Your task to perform on an android device: Show me the alarms in the clock app Image 0: 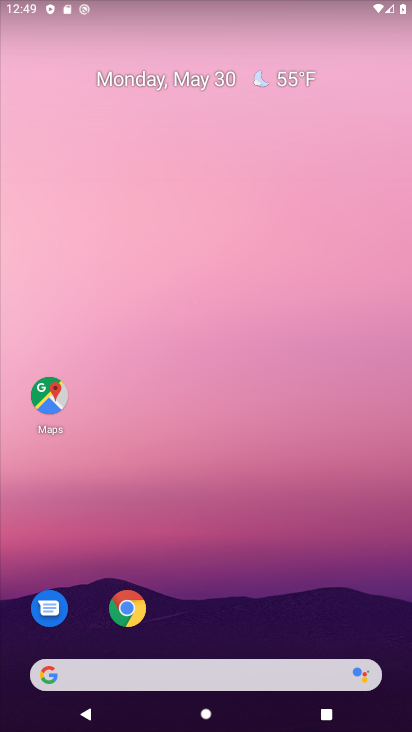
Step 0: drag from (189, 633) to (296, 104)
Your task to perform on an android device: Show me the alarms in the clock app Image 1: 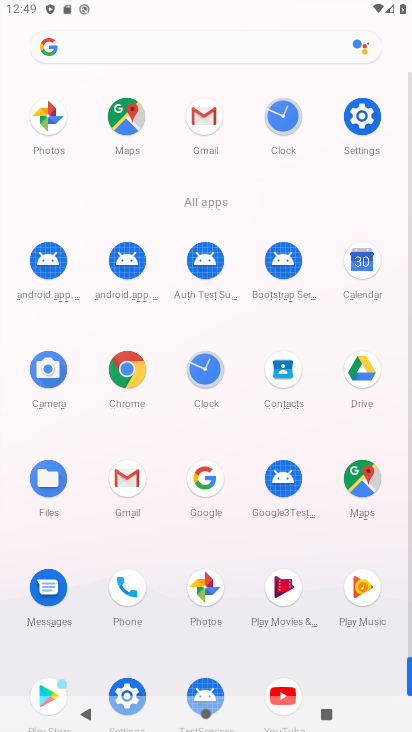
Step 1: click (198, 362)
Your task to perform on an android device: Show me the alarms in the clock app Image 2: 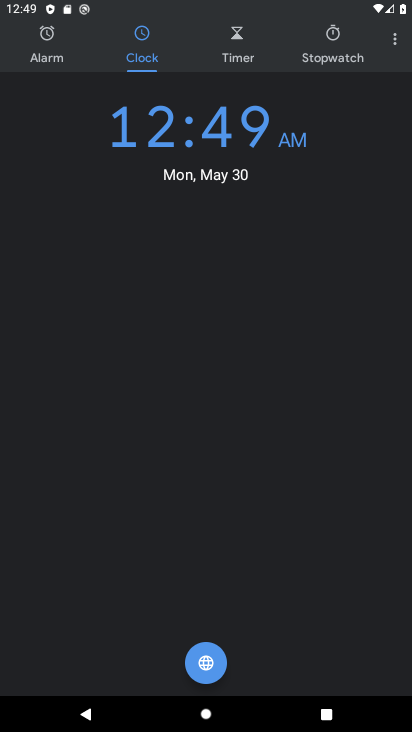
Step 2: click (46, 39)
Your task to perform on an android device: Show me the alarms in the clock app Image 3: 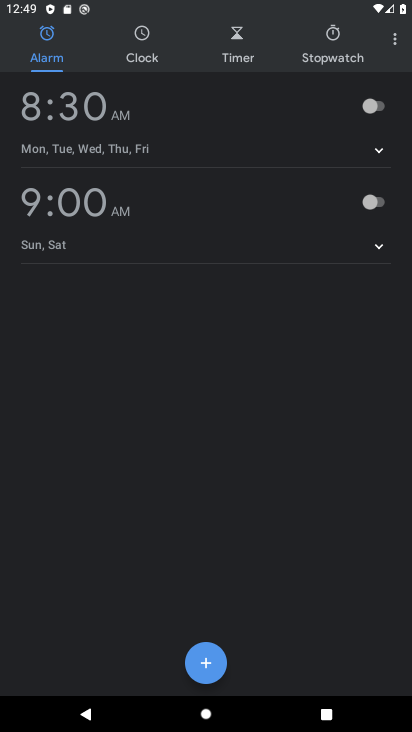
Step 3: task complete